Your task to perform on an android device: Do I have any events this weekend? Image 0: 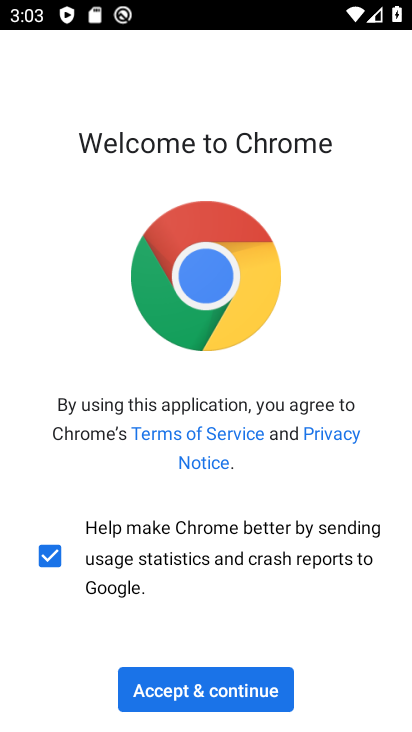
Step 0: press home button
Your task to perform on an android device: Do I have any events this weekend? Image 1: 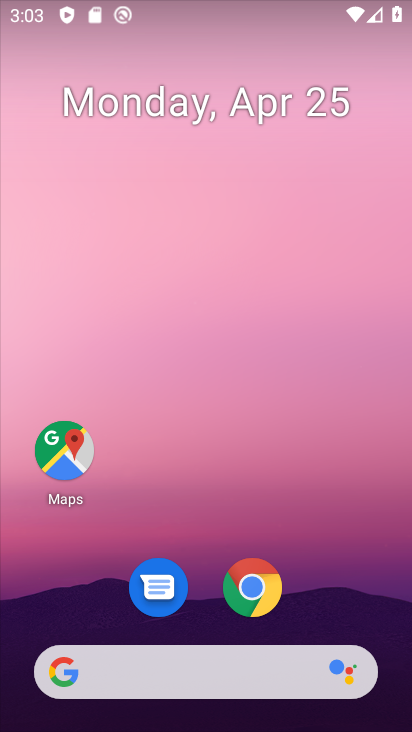
Step 1: drag from (147, 0) to (163, 504)
Your task to perform on an android device: Do I have any events this weekend? Image 2: 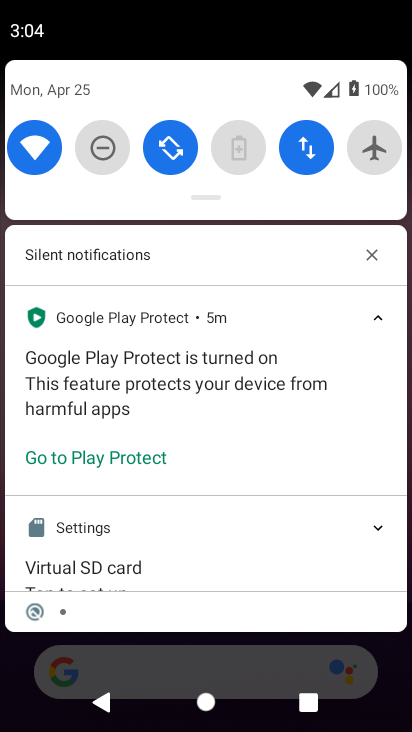
Step 2: drag from (182, 666) to (178, 125)
Your task to perform on an android device: Do I have any events this weekend? Image 3: 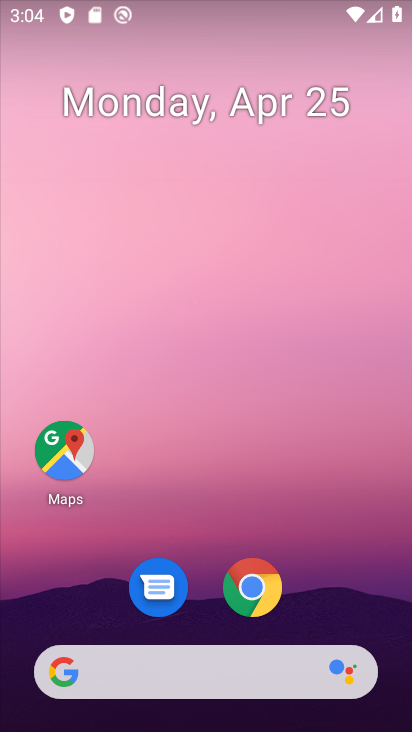
Step 3: drag from (386, 622) to (255, 34)
Your task to perform on an android device: Do I have any events this weekend? Image 4: 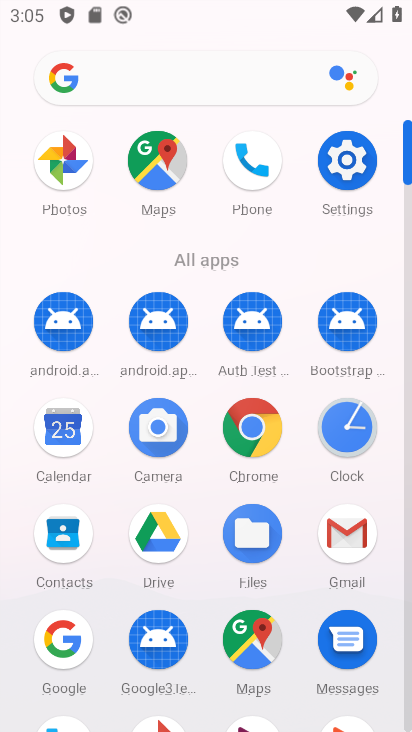
Step 4: click (50, 425)
Your task to perform on an android device: Do I have any events this weekend? Image 5: 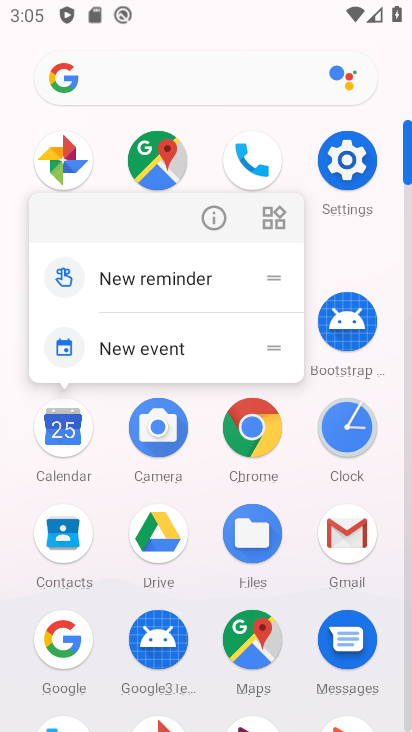
Step 5: click (50, 425)
Your task to perform on an android device: Do I have any events this weekend? Image 6: 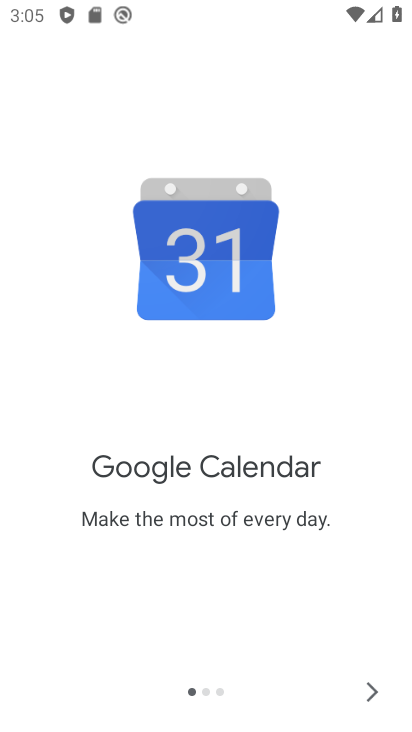
Step 6: click (377, 692)
Your task to perform on an android device: Do I have any events this weekend? Image 7: 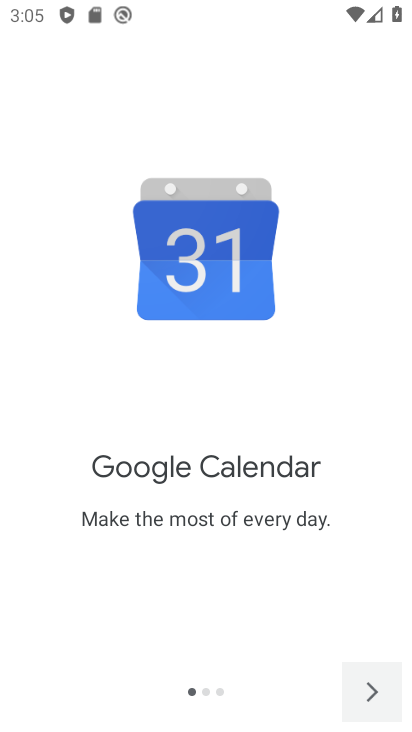
Step 7: click (377, 692)
Your task to perform on an android device: Do I have any events this weekend? Image 8: 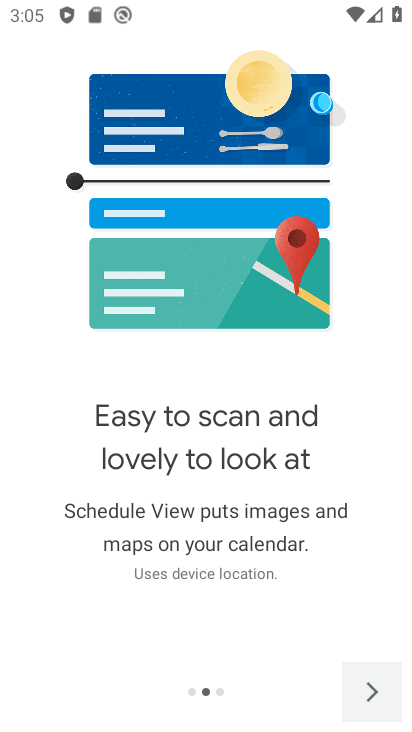
Step 8: click (377, 692)
Your task to perform on an android device: Do I have any events this weekend? Image 9: 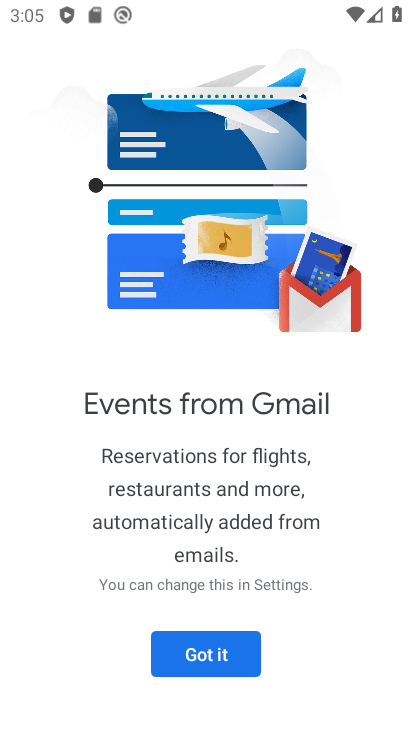
Step 9: click (244, 677)
Your task to perform on an android device: Do I have any events this weekend? Image 10: 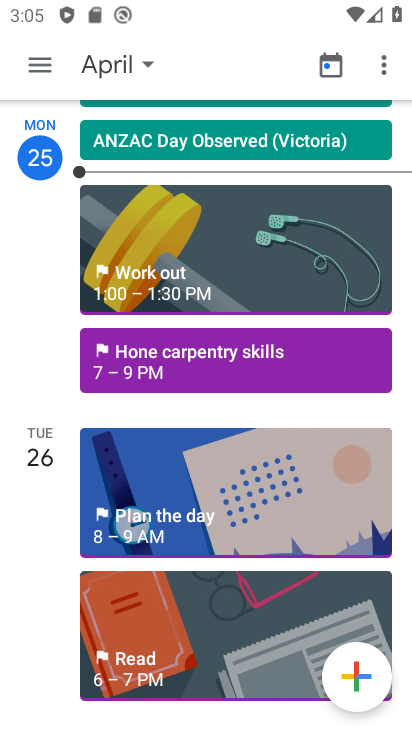
Step 10: click (145, 62)
Your task to perform on an android device: Do I have any events this weekend? Image 11: 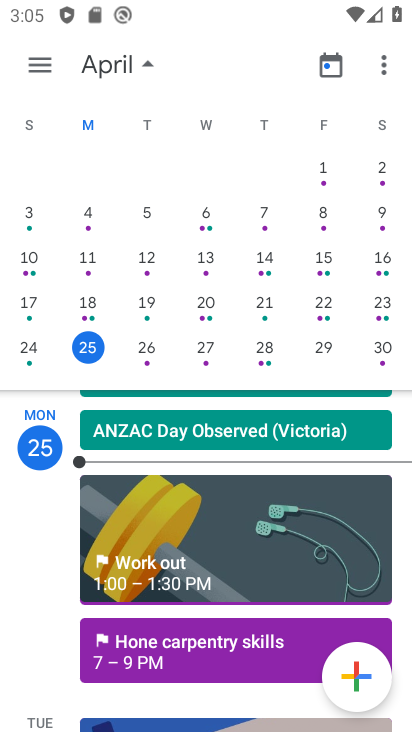
Step 11: task complete